Your task to perform on an android device: turn off picture-in-picture Image 0: 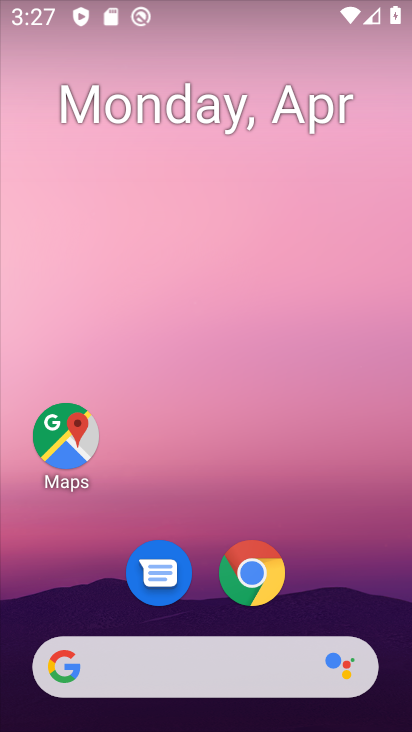
Step 0: click (248, 576)
Your task to perform on an android device: turn off picture-in-picture Image 1: 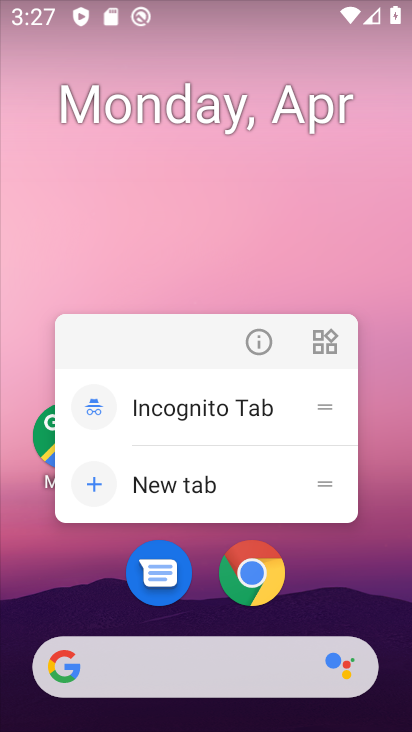
Step 1: click (255, 340)
Your task to perform on an android device: turn off picture-in-picture Image 2: 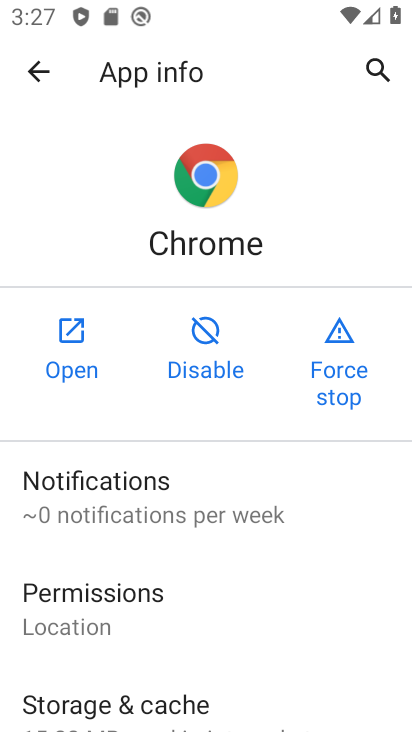
Step 2: drag from (160, 696) to (137, 273)
Your task to perform on an android device: turn off picture-in-picture Image 3: 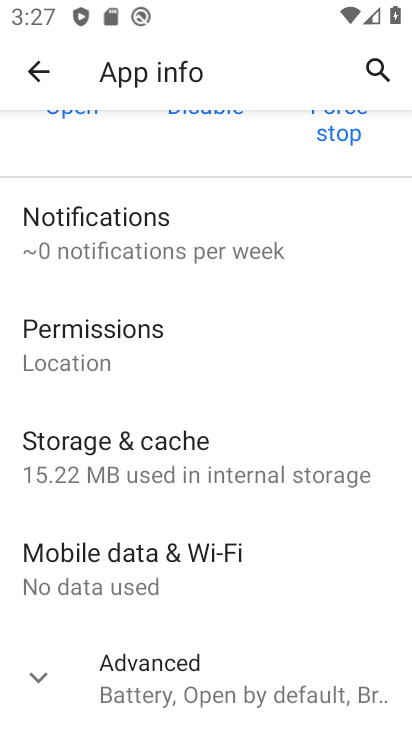
Step 3: click (188, 680)
Your task to perform on an android device: turn off picture-in-picture Image 4: 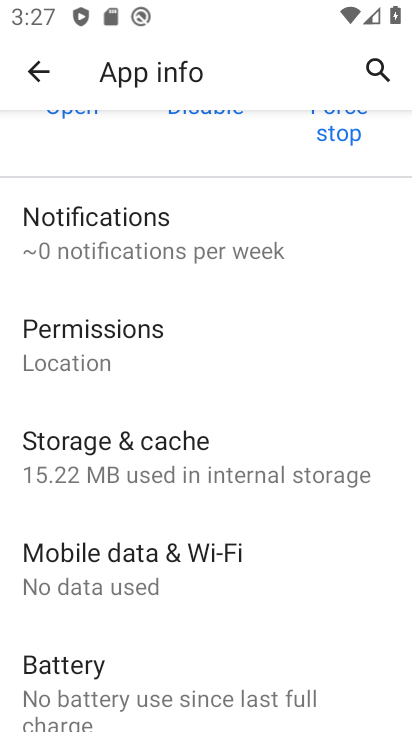
Step 4: drag from (230, 725) to (231, 365)
Your task to perform on an android device: turn off picture-in-picture Image 5: 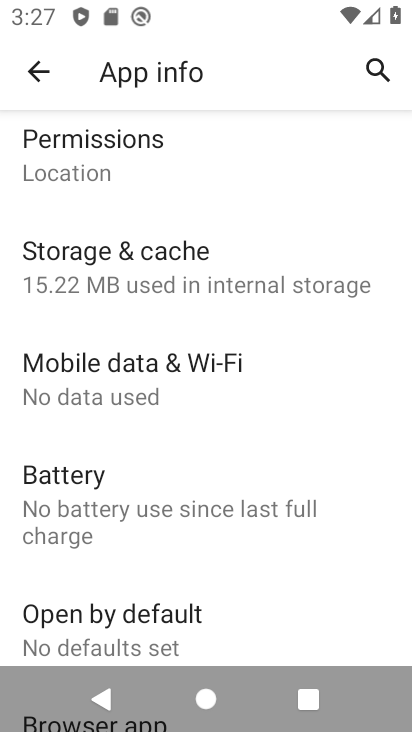
Step 5: drag from (182, 610) to (182, 265)
Your task to perform on an android device: turn off picture-in-picture Image 6: 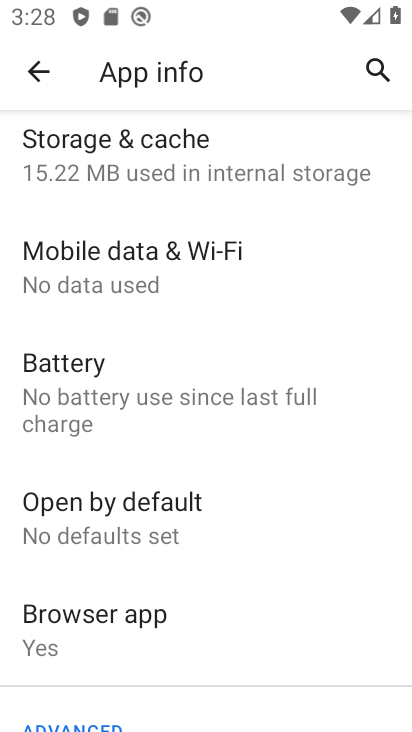
Step 6: drag from (142, 672) to (128, 302)
Your task to perform on an android device: turn off picture-in-picture Image 7: 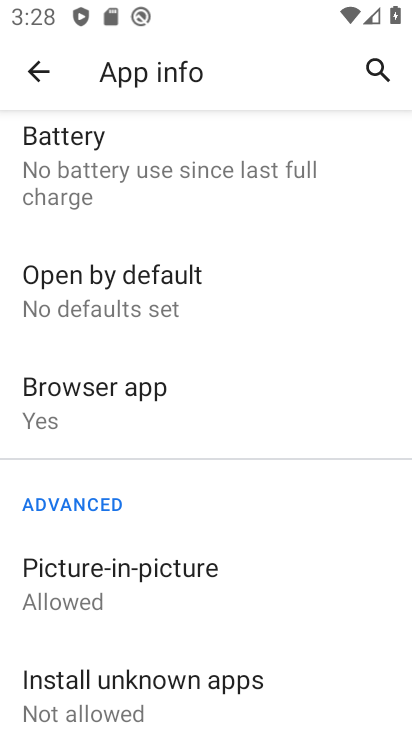
Step 7: click (108, 595)
Your task to perform on an android device: turn off picture-in-picture Image 8: 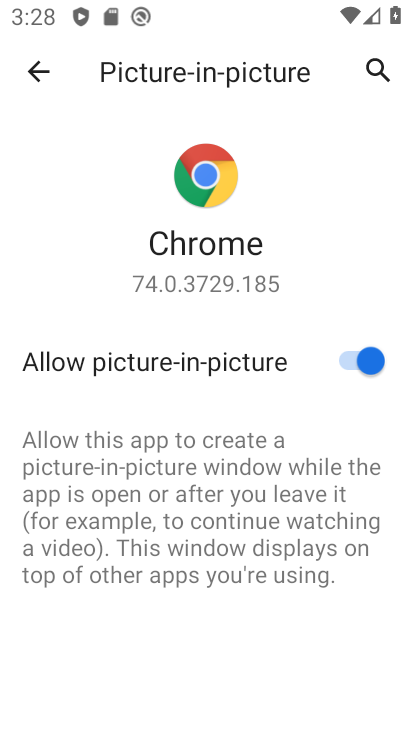
Step 8: click (354, 358)
Your task to perform on an android device: turn off picture-in-picture Image 9: 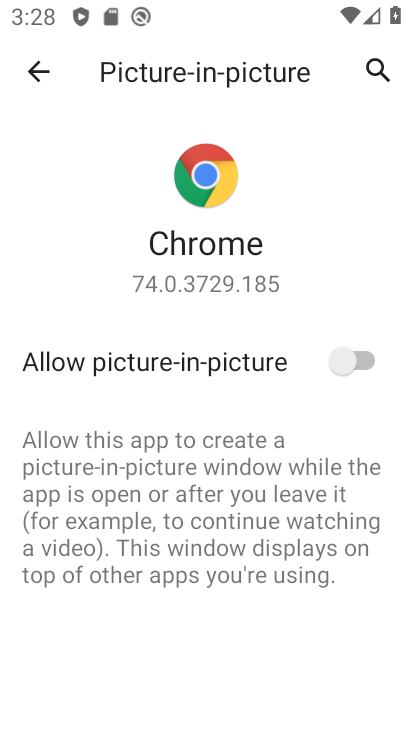
Step 9: task complete